Your task to perform on an android device: Open display settings Image 0: 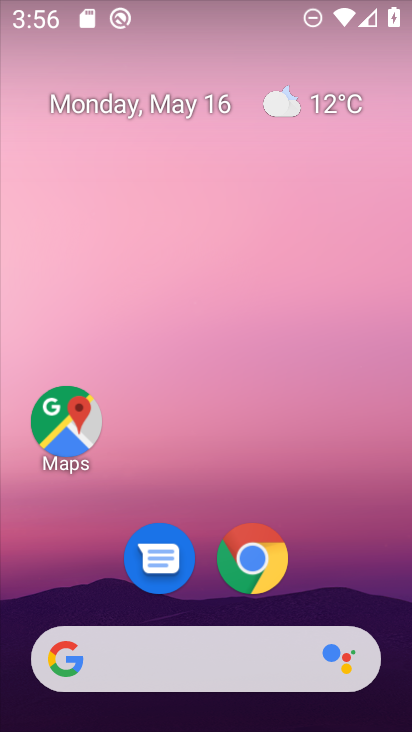
Step 0: drag from (71, 613) to (198, 63)
Your task to perform on an android device: Open display settings Image 1: 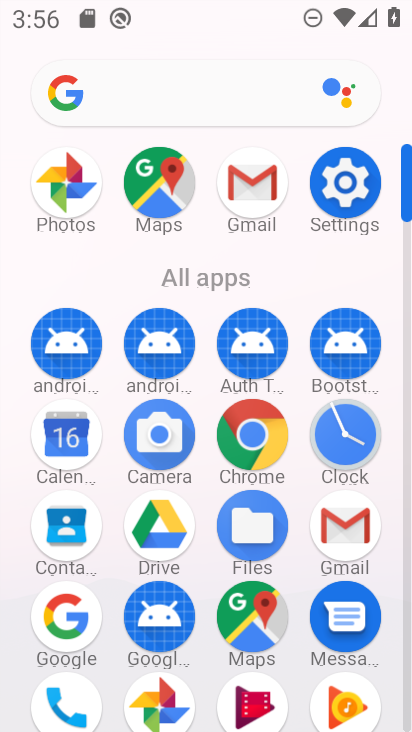
Step 1: drag from (140, 578) to (238, 238)
Your task to perform on an android device: Open display settings Image 2: 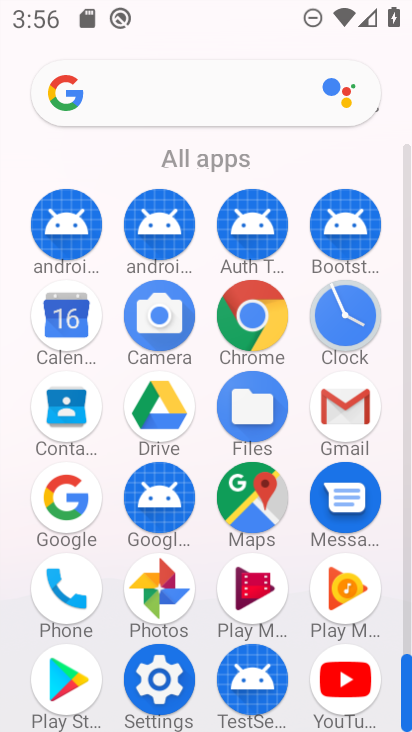
Step 2: click (133, 669)
Your task to perform on an android device: Open display settings Image 3: 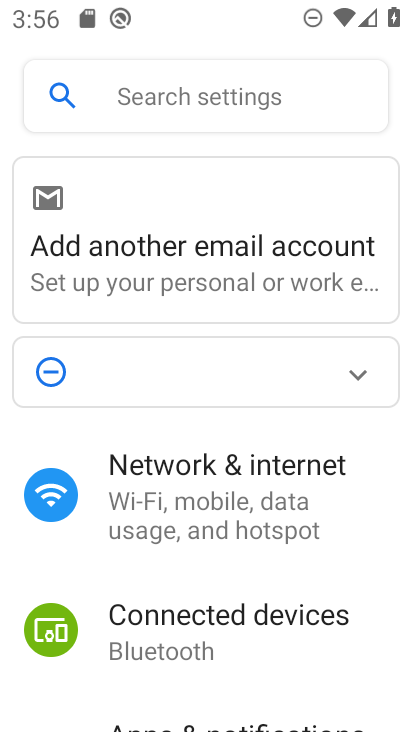
Step 3: drag from (166, 660) to (305, 110)
Your task to perform on an android device: Open display settings Image 4: 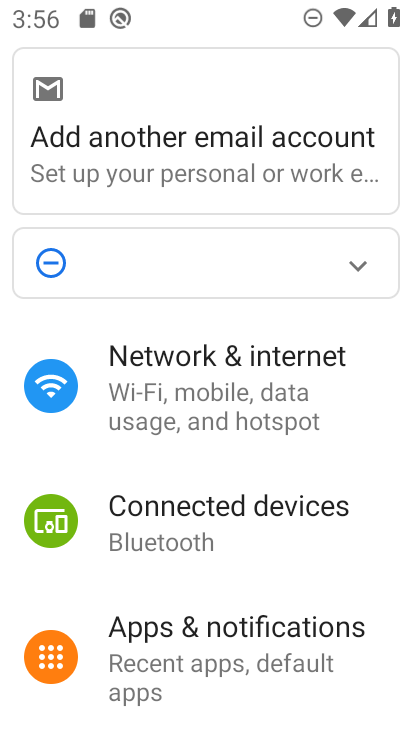
Step 4: drag from (257, 644) to (375, 122)
Your task to perform on an android device: Open display settings Image 5: 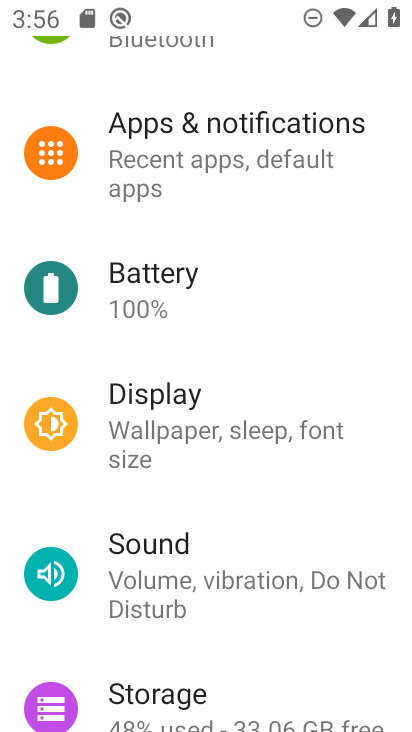
Step 5: click (179, 423)
Your task to perform on an android device: Open display settings Image 6: 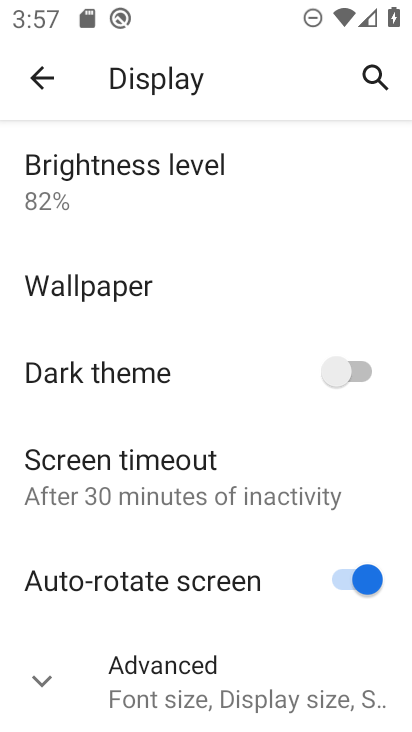
Step 6: task complete